Your task to perform on an android device: What's the weather going to be tomorrow? Image 0: 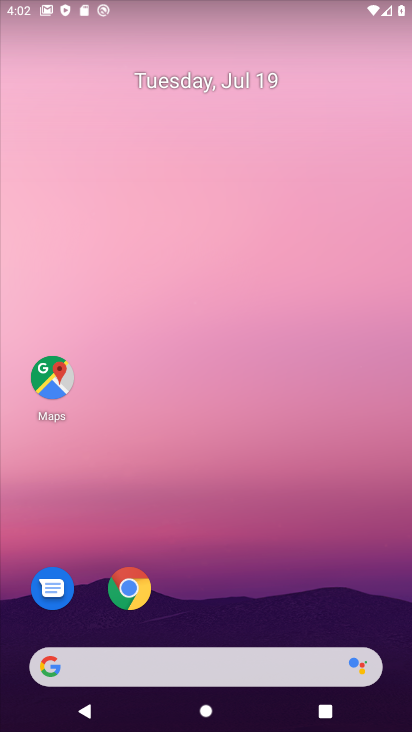
Step 0: click (177, 667)
Your task to perform on an android device: What's the weather going to be tomorrow? Image 1: 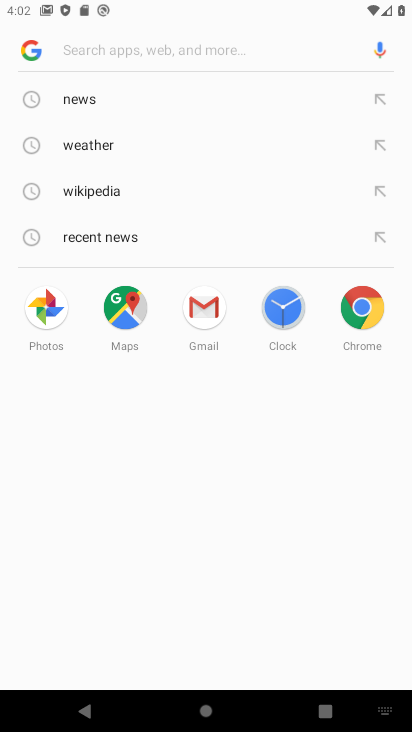
Step 1: type "What's the weather going to be tomorrow?"
Your task to perform on an android device: What's the weather going to be tomorrow? Image 2: 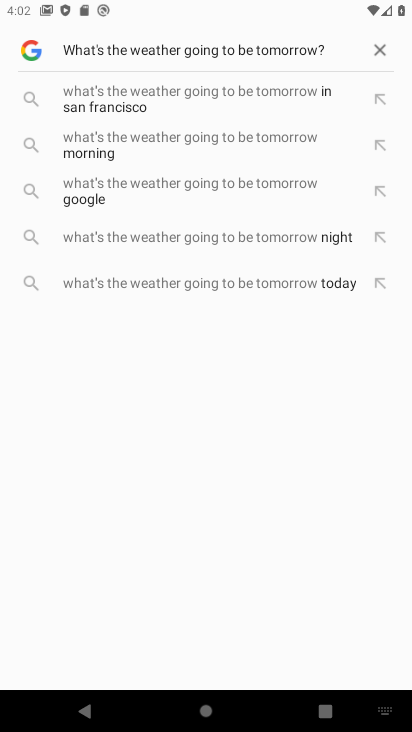
Step 2: press enter
Your task to perform on an android device: What's the weather going to be tomorrow? Image 3: 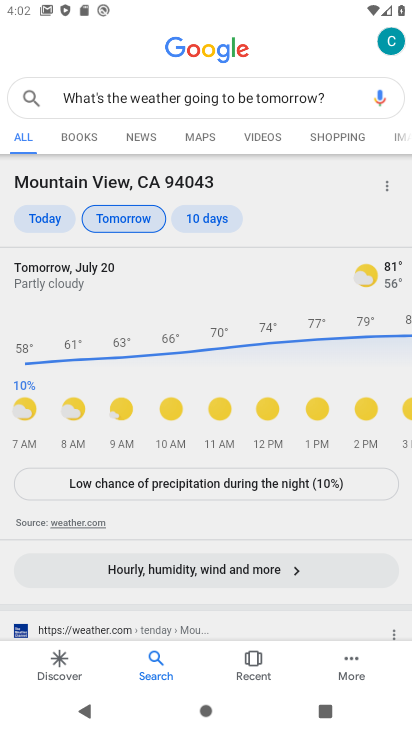
Step 3: task complete